Your task to perform on an android device: Open Wikipedia Image 0: 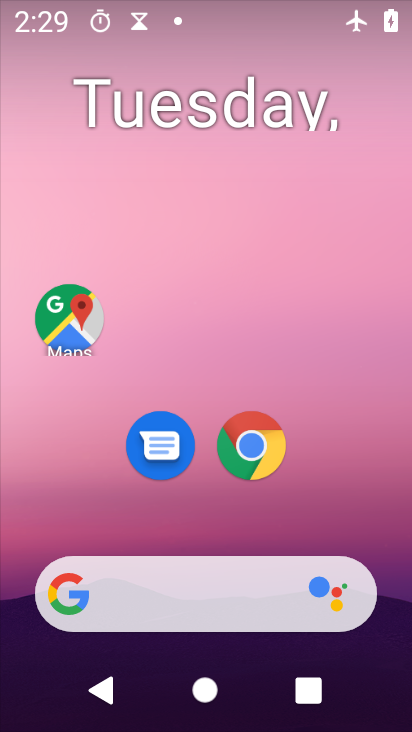
Step 0: drag from (283, 642) to (316, 60)
Your task to perform on an android device: Open Wikipedia Image 1: 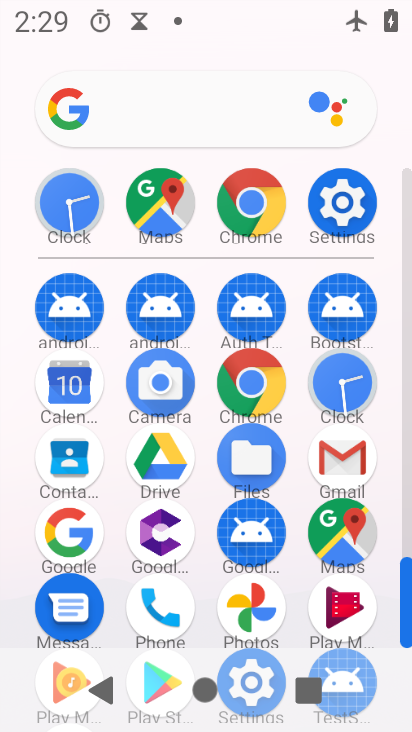
Step 1: click (250, 391)
Your task to perform on an android device: Open Wikipedia Image 2: 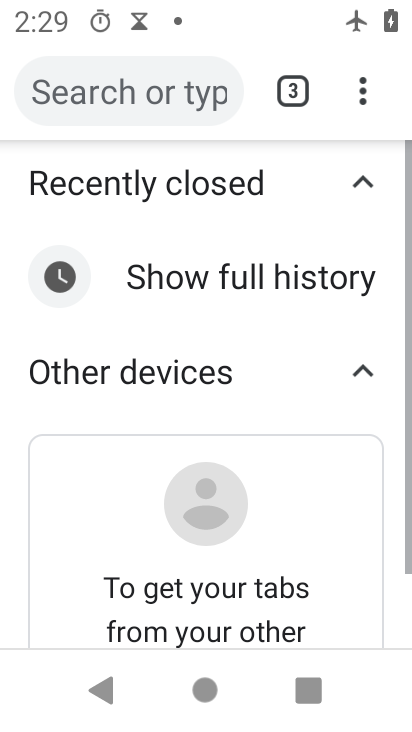
Step 2: click (174, 102)
Your task to perform on an android device: Open Wikipedia Image 3: 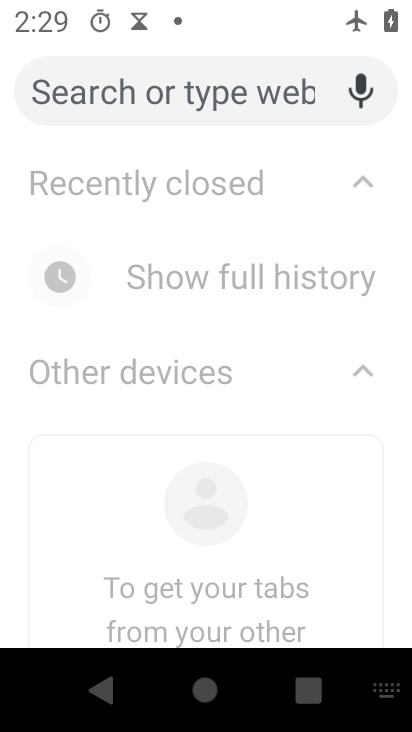
Step 3: type "wikipedia"
Your task to perform on an android device: Open Wikipedia Image 4: 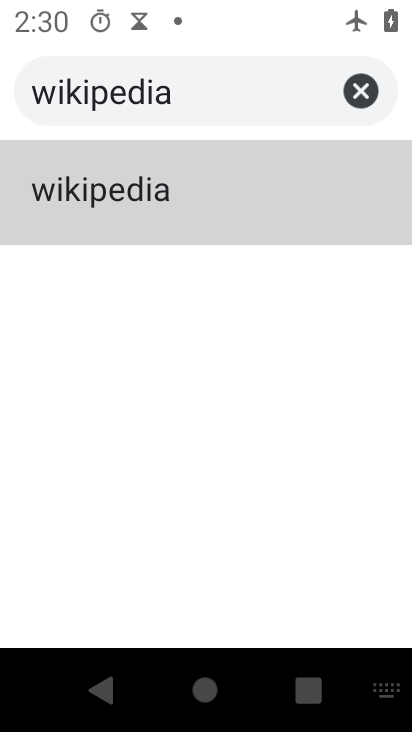
Step 4: click (104, 203)
Your task to perform on an android device: Open Wikipedia Image 5: 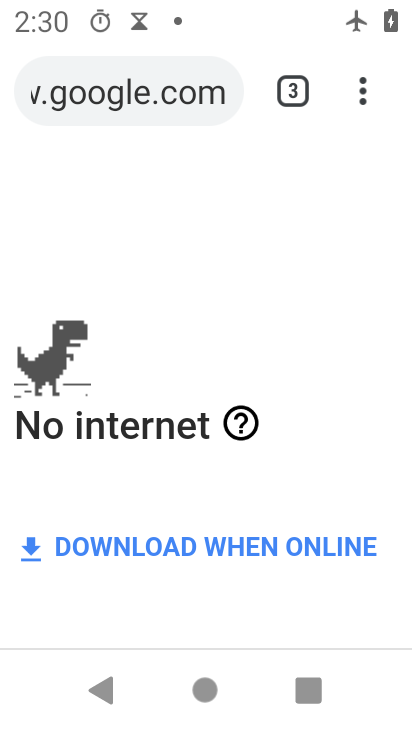
Step 5: task complete